Your task to perform on an android device: find which apps use the phone's location Image 0: 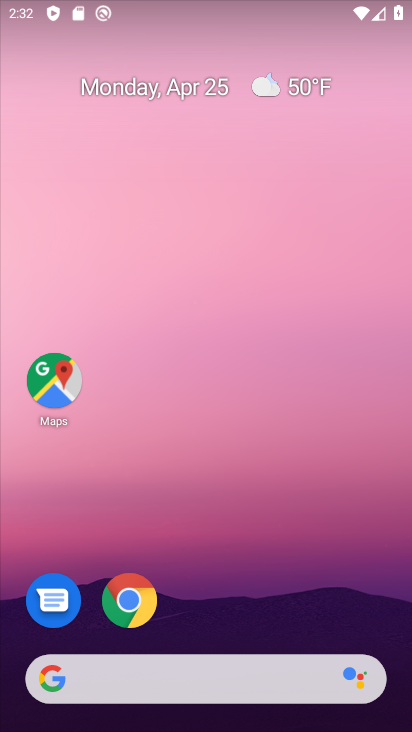
Step 0: drag from (388, 625) to (364, 199)
Your task to perform on an android device: find which apps use the phone's location Image 1: 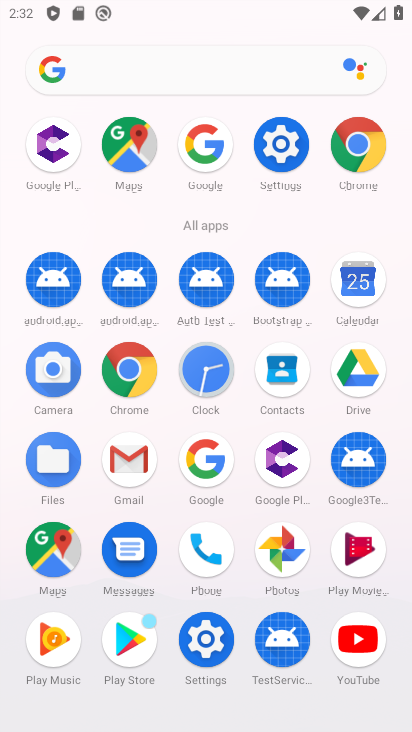
Step 1: click (195, 665)
Your task to perform on an android device: find which apps use the phone's location Image 2: 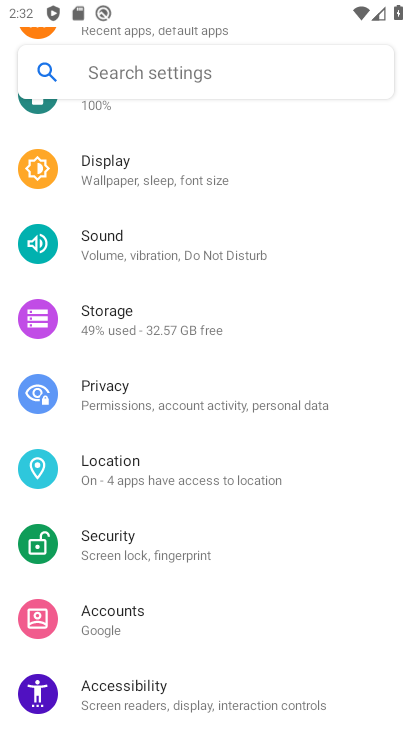
Step 2: click (151, 465)
Your task to perform on an android device: find which apps use the phone's location Image 3: 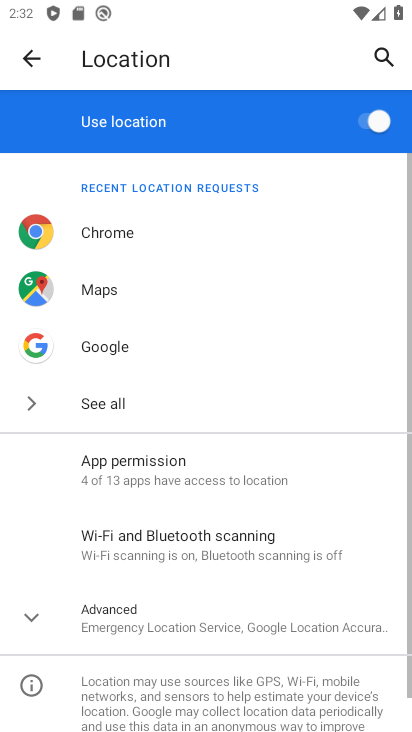
Step 3: click (103, 287)
Your task to perform on an android device: find which apps use the phone's location Image 4: 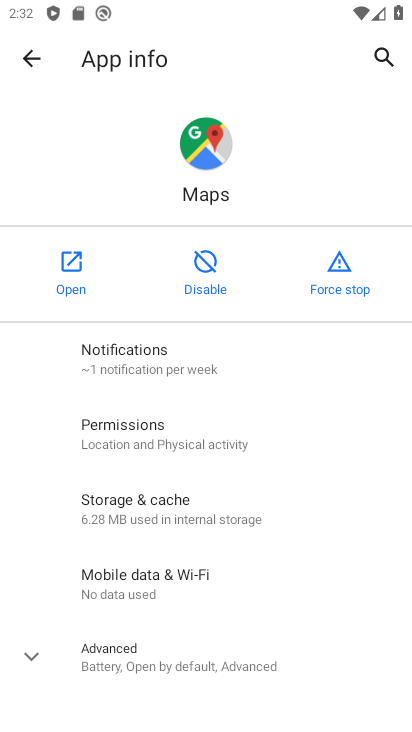
Step 4: task complete